Your task to perform on an android device: check battery use Image 0: 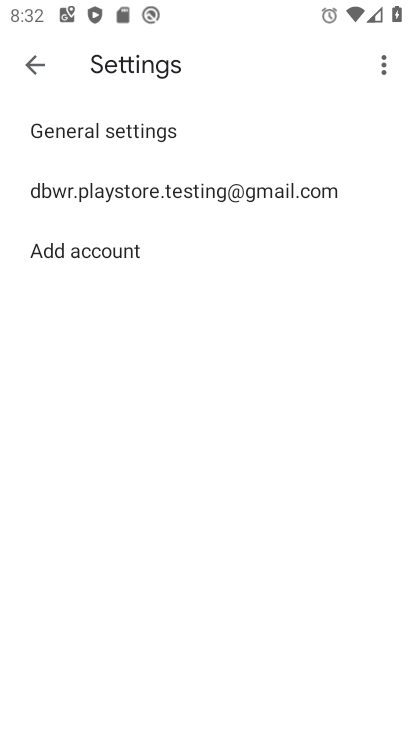
Step 0: press home button
Your task to perform on an android device: check battery use Image 1: 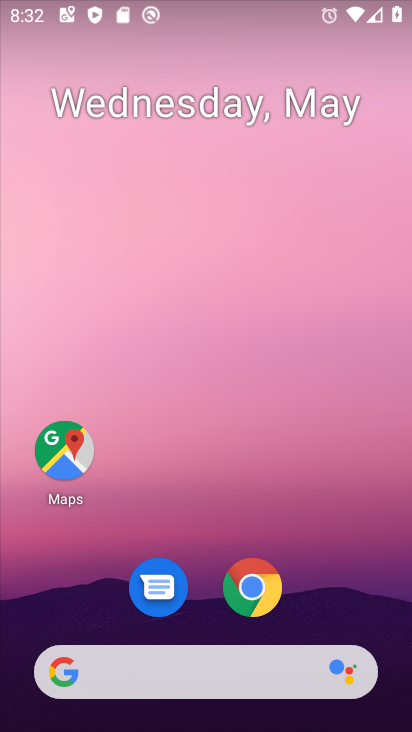
Step 1: drag from (197, 615) to (230, 28)
Your task to perform on an android device: check battery use Image 2: 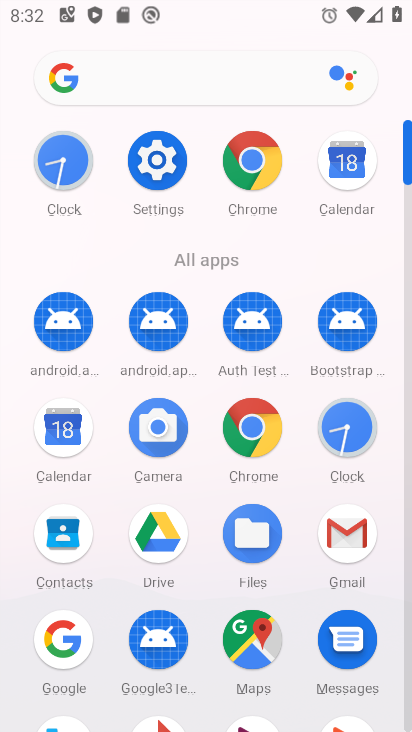
Step 2: click (157, 185)
Your task to perform on an android device: check battery use Image 3: 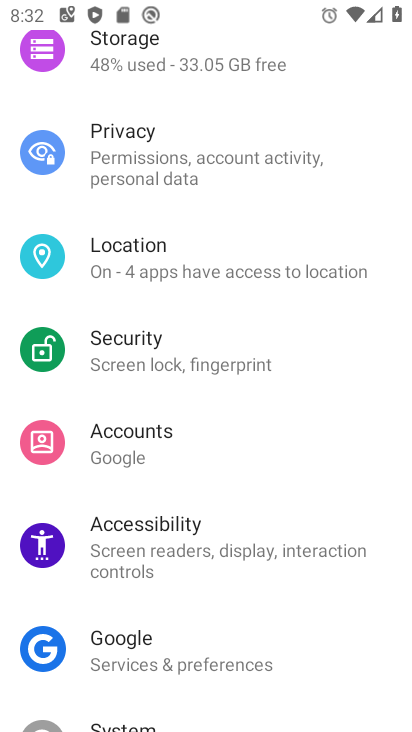
Step 3: drag from (201, 186) to (186, 547)
Your task to perform on an android device: check battery use Image 4: 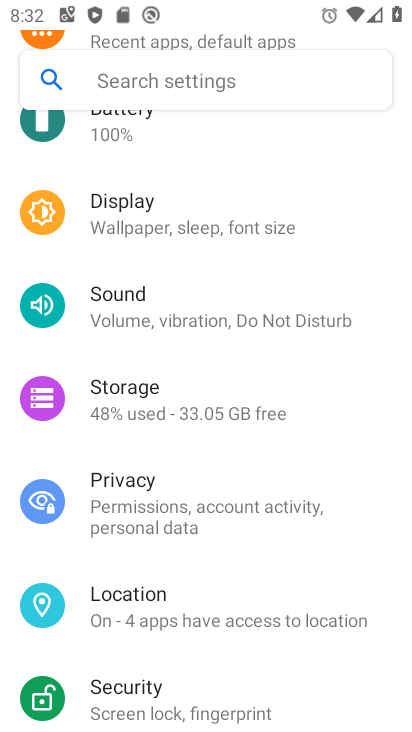
Step 4: drag from (237, 244) to (217, 473)
Your task to perform on an android device: check battery use Image 5: 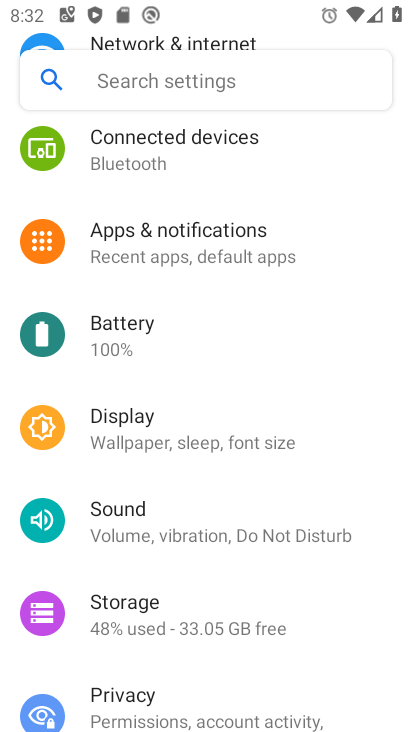
Step 5: click (158, 346)
Your task to perform on an android device: check battery use Image 6: 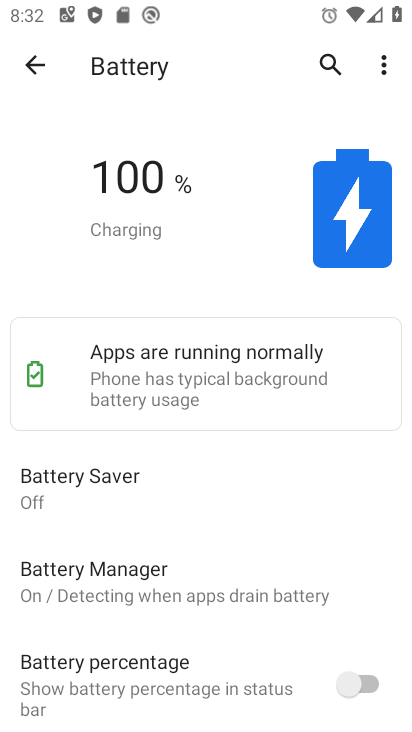
Step 6: click (386, 73)
Your task to perform on an android device: check battery use Image 7: 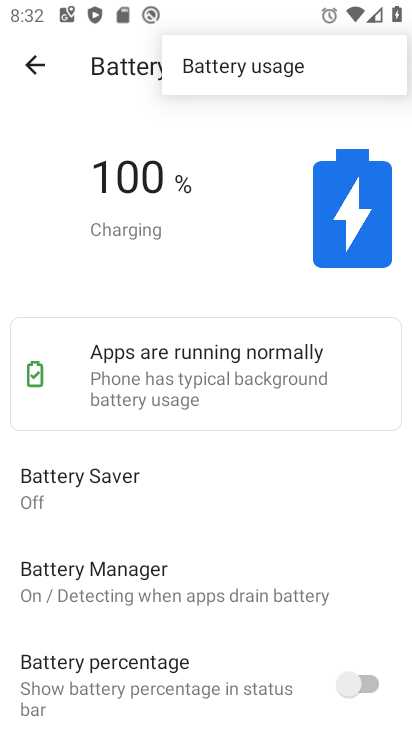
Step 7: click (293, 78)
Your task to perform on an android device: check battery use Image 8: 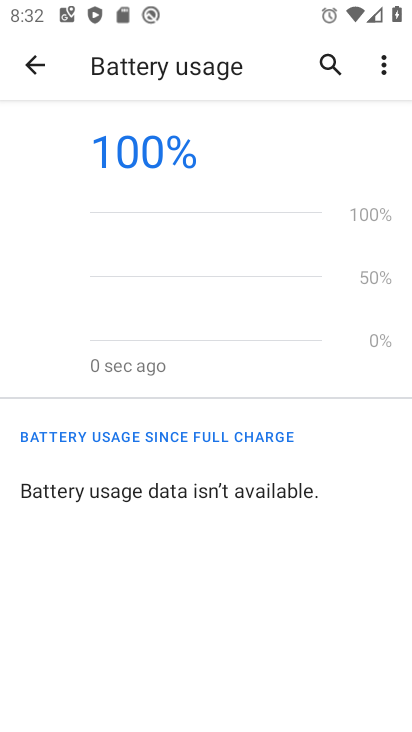
Step 8: task complete